Your task to perform on an android device: turn off location history Image 0: 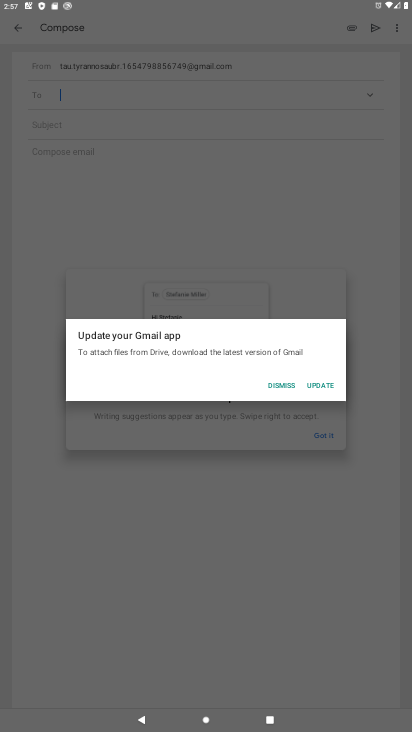
Step 0: press home button
Your task to perform on an android device: turn off location history Image 1: 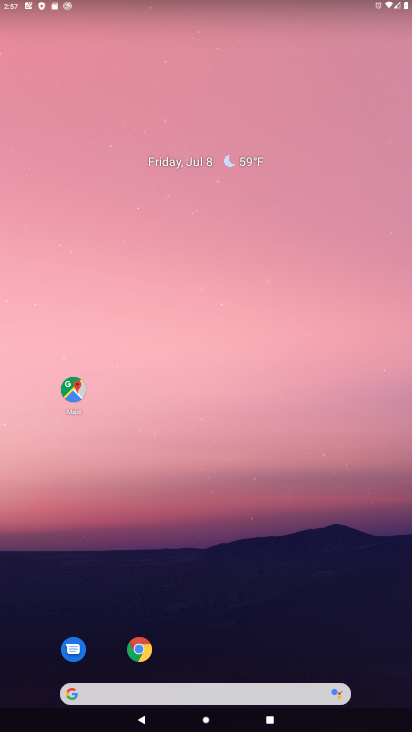
Step 1: drag from (355, 609) to (196, 208)
Your task to perform on an android device: turn off location history Image 2: 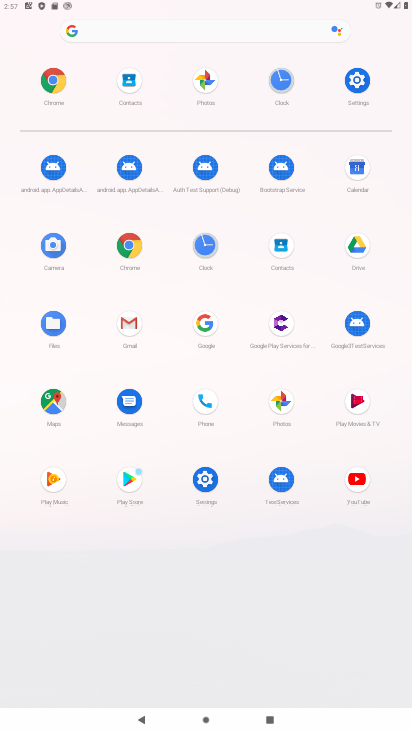
Step 2: click (361, 81)
Your task to perform on an android device: turn off location history Image 3: 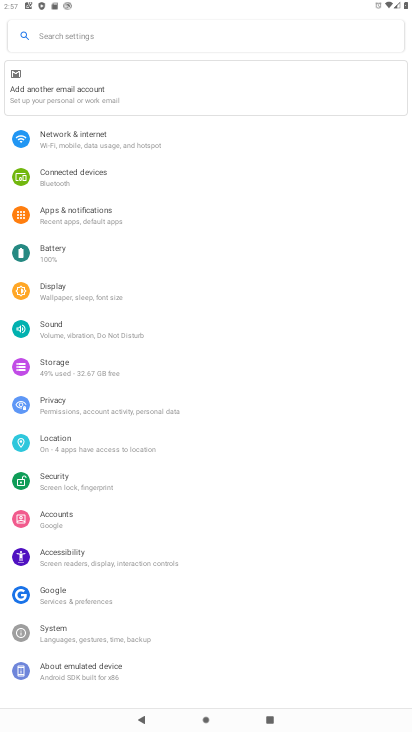
Step 3: click (84, 445)
Your task to perform on an android device: turn off location history Image 4: 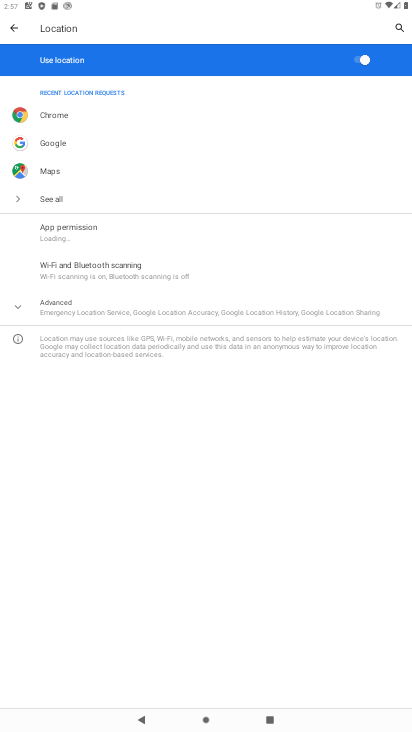
Step 4: click (122, 311)
Your task to perform on an android device: turn off location history Image 5: 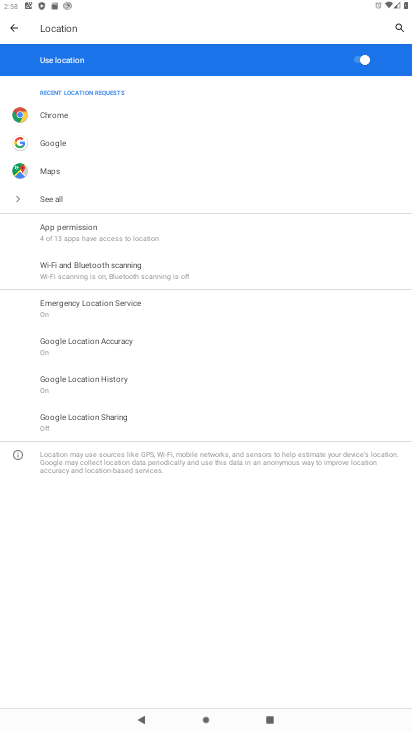
Step 5: click (109, 378)
Your task to perform on an android device: turn off location history Image 6: 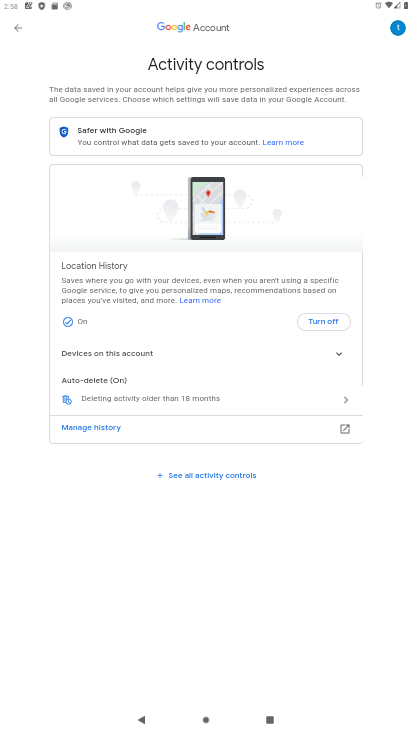
Step 6: click (326, 326)
Your task to perform on an android device: turn off location history Image 7: 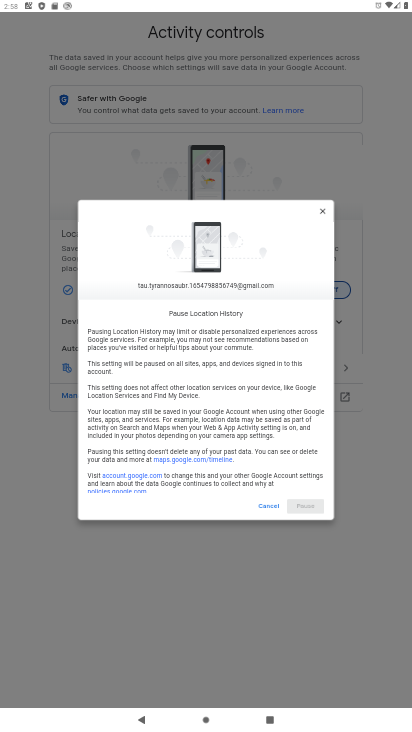
Step 7: click (317, 283)
Your task to perform on an android device: turn off location history Image 8: 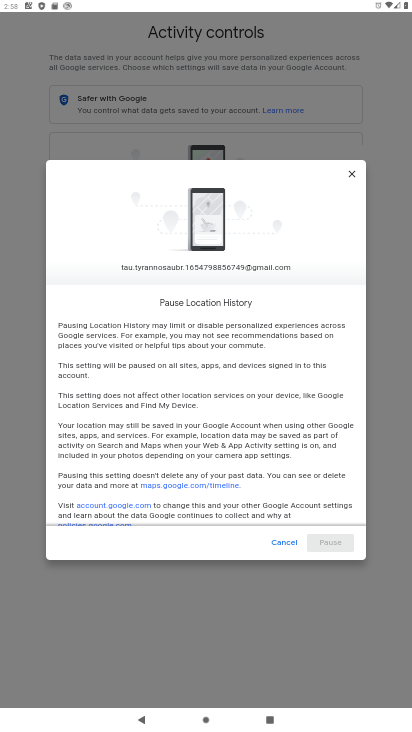
Step 8: drag from (295, 495) to (298, 214)
Your task to perform on an android device: turn off location history Image 9: 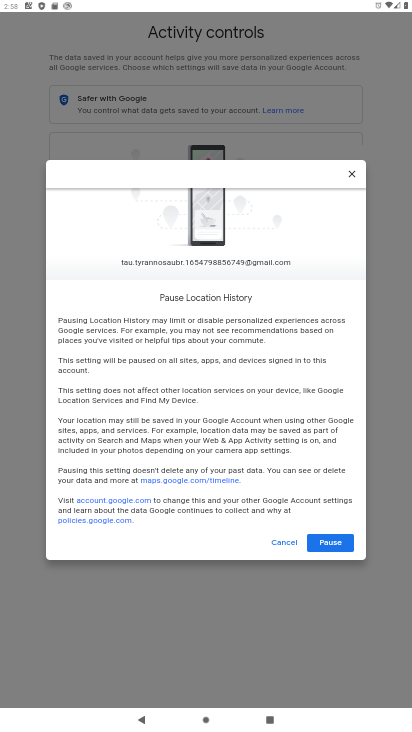
Step 9: click (343, 550)
Your task to perform on an android device: turn off location history Image 10: 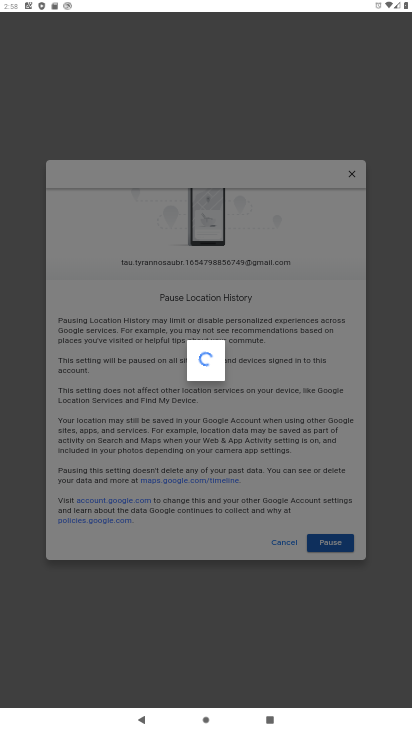
Step 10: click (334, 544)
Your task to perform on an android device: turn off location history Image 11: 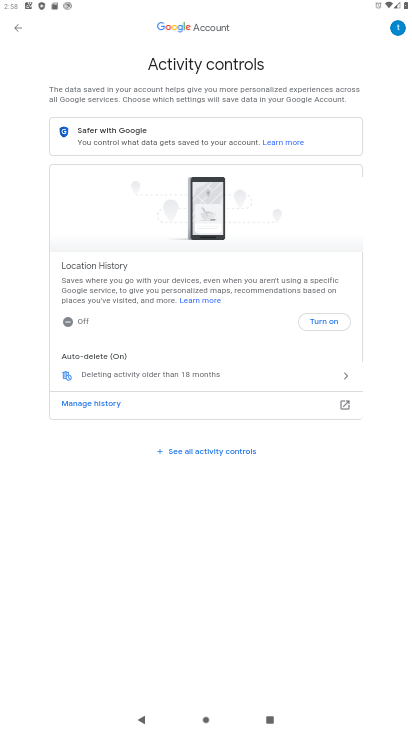
Step 11: task complete